Your task to perform on an android device: Check the news Image 0: 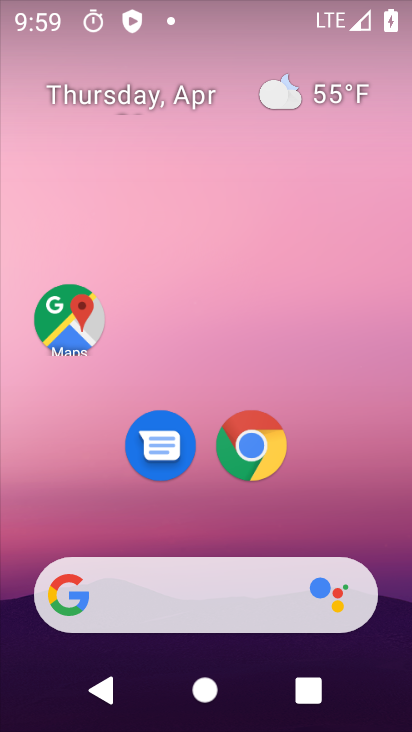
Step 0: drag from (25, 228) to (409, 217)
Your task to perform on an android device: Check the news Image 1: 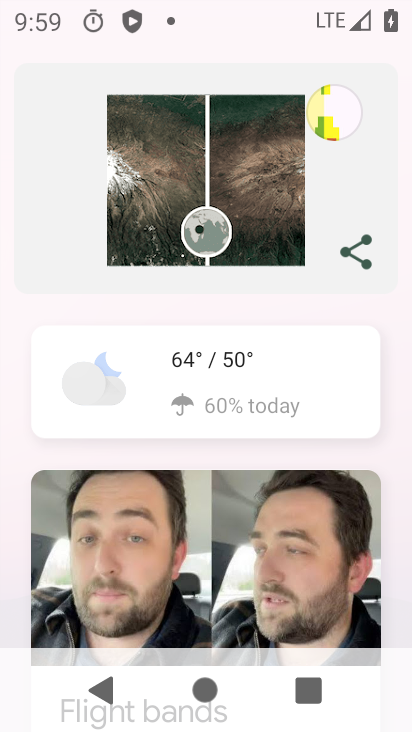
Step 1: task complete